Your task to perform on an android device: Open settings Image 0: 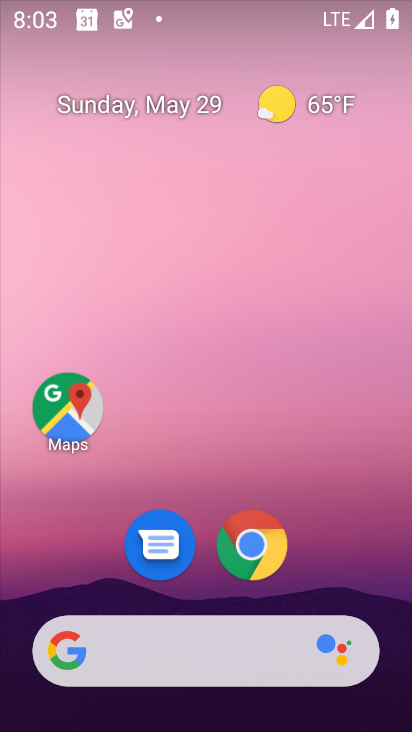
Step 0: drag from (199, 556) to (286, 209)
Your task to perform on an android device: Open settings Image 1: 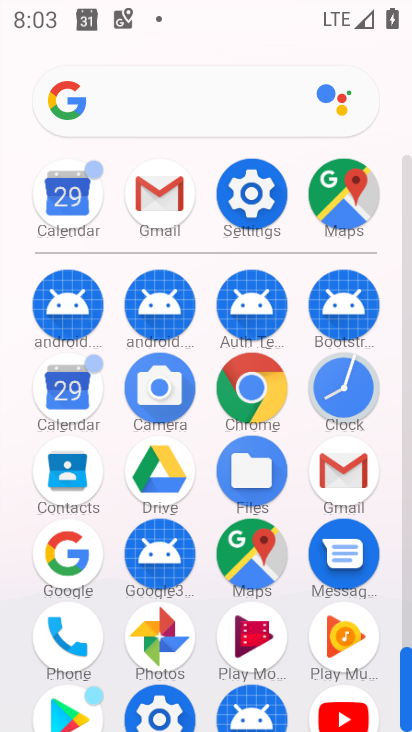
Step 1: click (258, 189)
Your task to perform on an android device: Open settings Image 2: 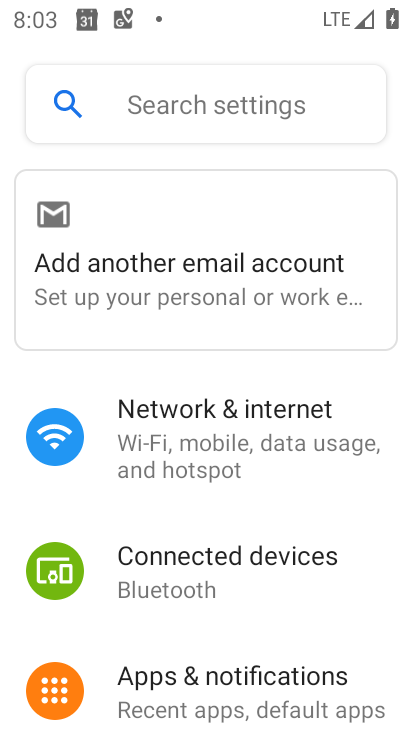
Step 2: task complete